Your task to perform on an android device: refresh tabs in the chrome app Image 0: 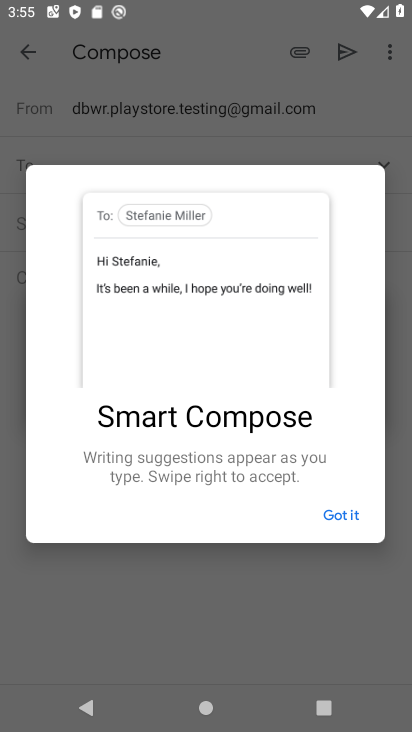
Step 0: press home button
Your task to perform on an android device: refresh tabs in the chrome app Image 1: 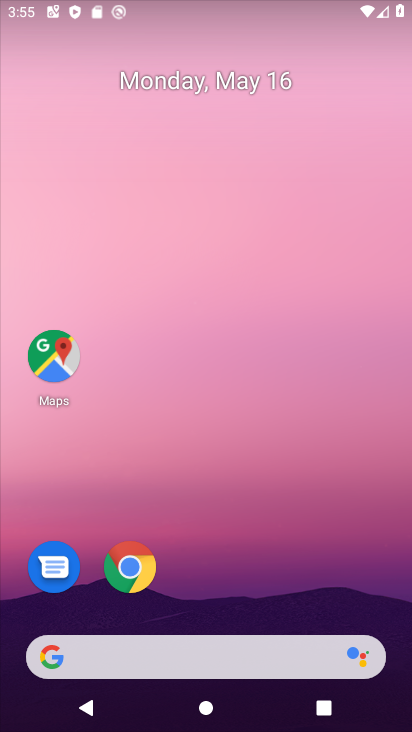
Step 1: drag from (233, 612) to (291, 1)
Your task to perform on an android device: refresh tabs in the chrome app Image 2: 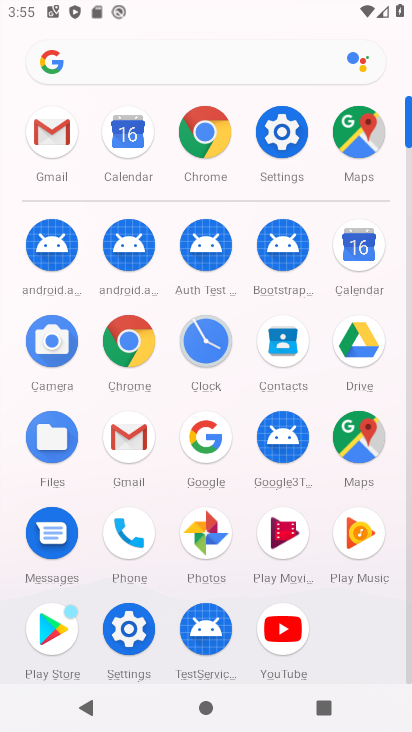
Step 2: click (108, 345)
Your task to perform on an android device: refresh tabs in the chrome app Image 3: 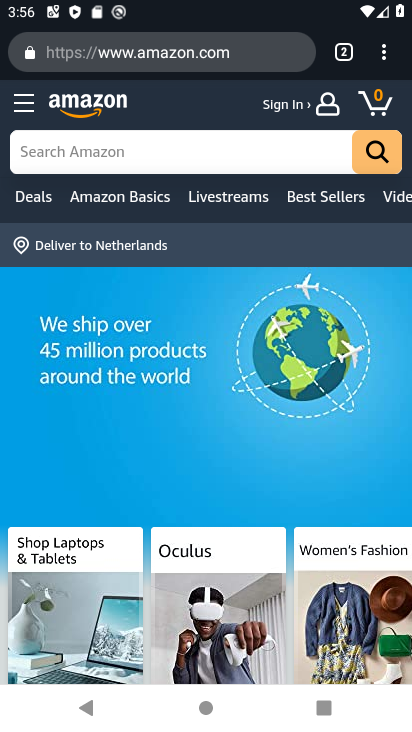
Step 3: click (389, 51)
Your task to perform on an android device: refresh tabs in the chrome app Image 4: 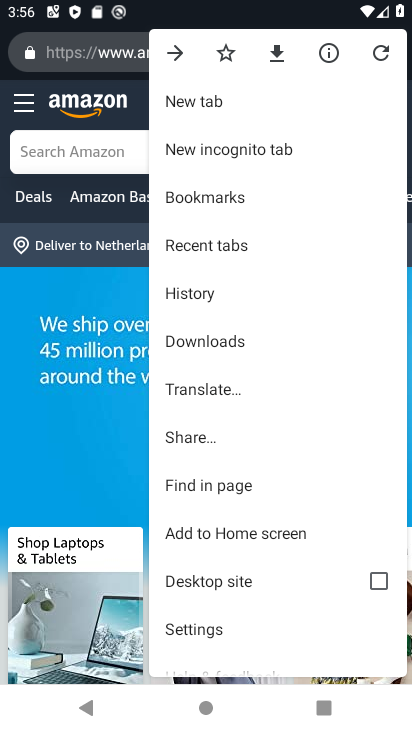
Step 4: click (380, 53)
Your task to perform on an android device: refresh tabs in the chrome app Image 5: 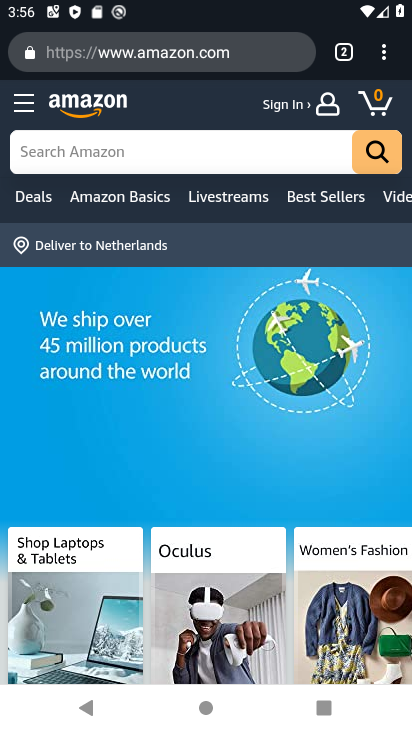
Step 5: task complete